Your task to perform on an android device: open chrome and create a bookmark for the current page Image 0: 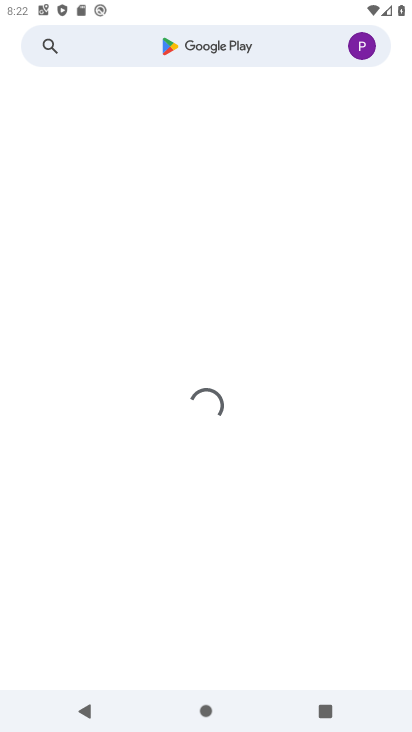
Step 0: press home button
Your task to perform on an android device: open chrome and create a bookmark for the current page Image 1: 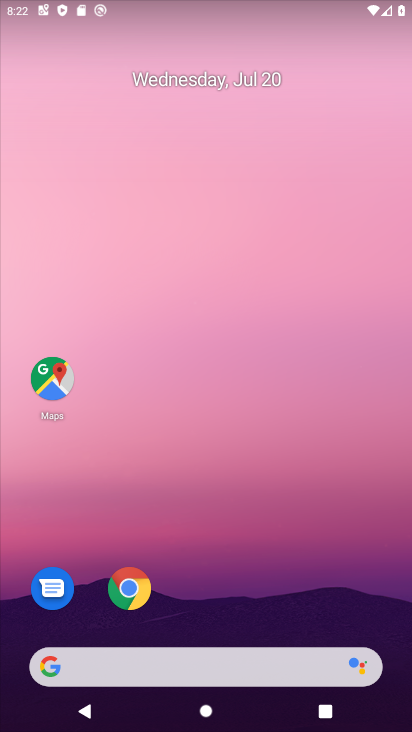
Step 1: click (121, 597)
Your task to perform on an android device: open chrome and create a bookmark for the current page Image 2: 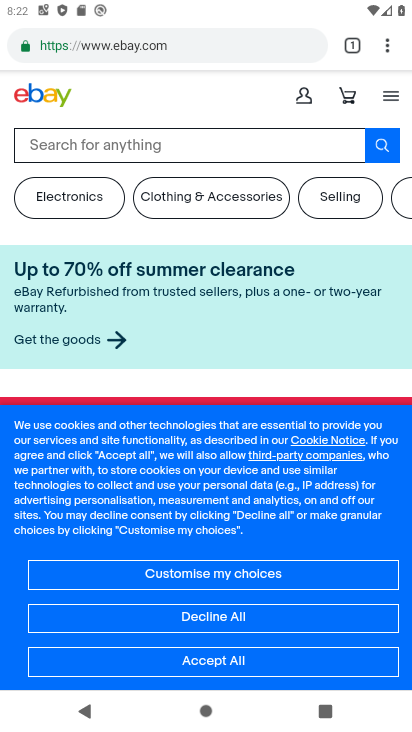
Step 2: click (395, 41)
Your task to perform on an android device: open chrome and create a bookmark for the current page Image 3: 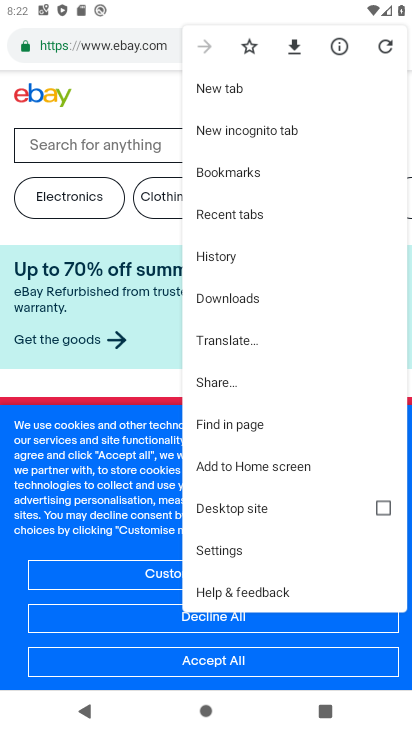
Step 3: click (253, 46)
Your task to perform on an android device: open chrome and create a bookmark for the current page Image 4: 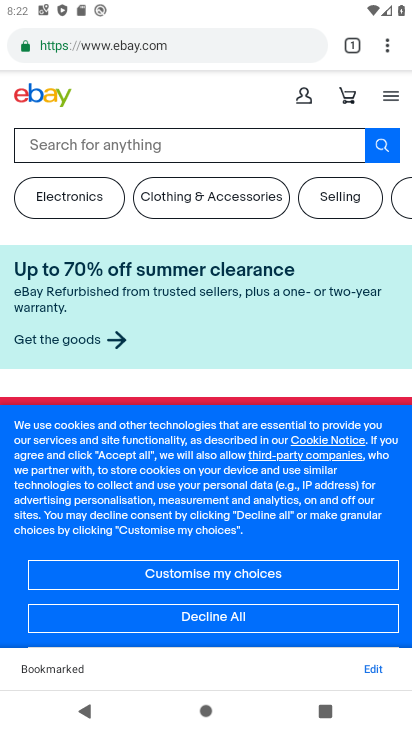
Step 4: task complete